Your task to perform on an android device: When is my next meeting? Image 0: 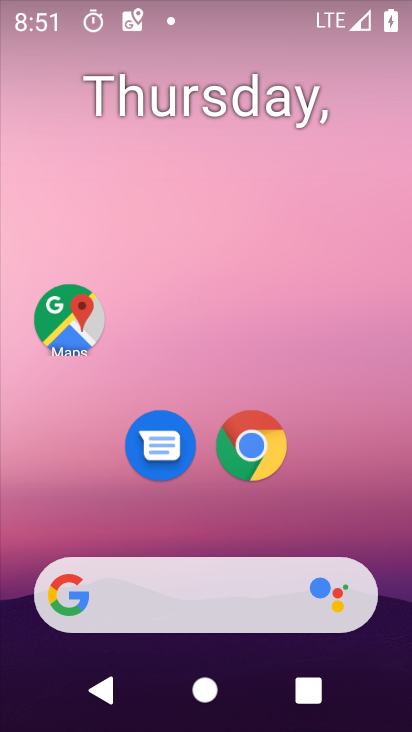
Step 0: drag from (190, 553) to (238, 169)
Your task to perform on an android device: When is my next meeting? Image 1: 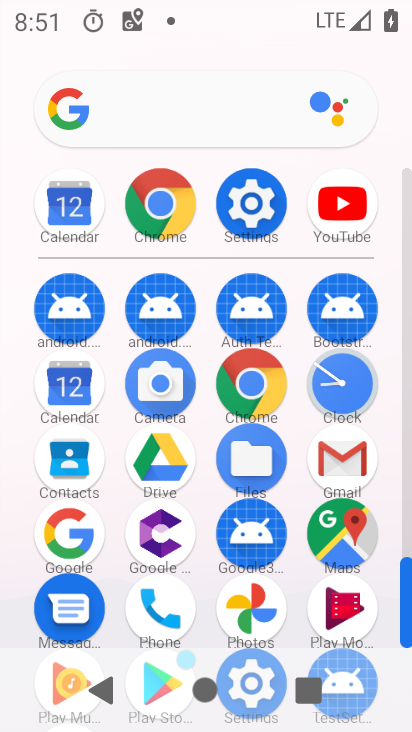
Step 1: drag from (201, 620) to (207, 249)
Your task to perform on an android device: When is my next meeting? Image 2: 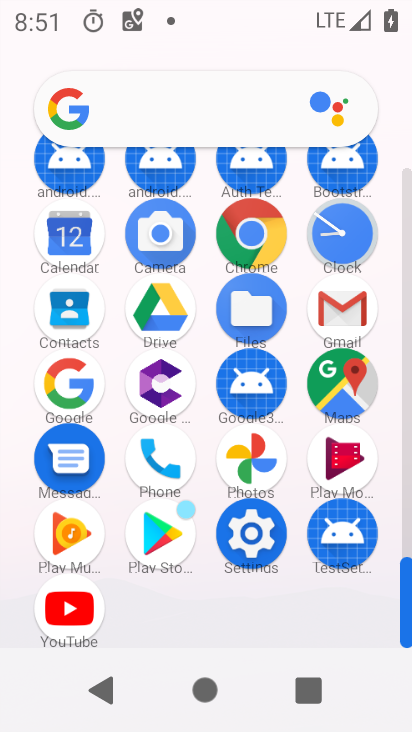
Step 2: click (75, 242)
Your task to perform on an android device: When is my next meeting? Image 3: 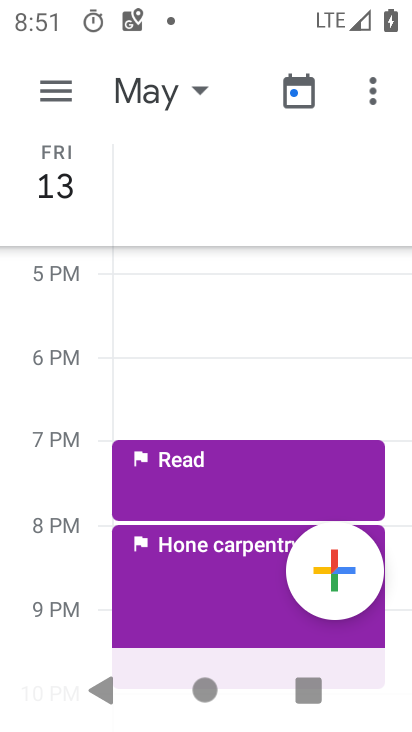
Step 3: click (158, 94)
Your task to perform on an android device: When is my next meeting? Image 4: 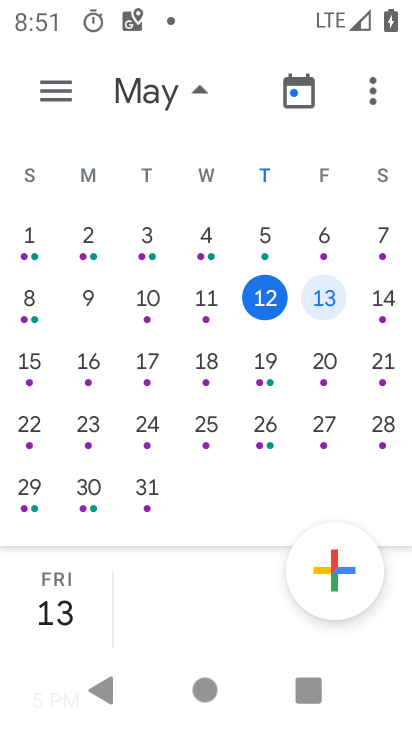
Step 4: click (329, 308)
Your task to perform on an android device: When is my next meeting? Image 5: 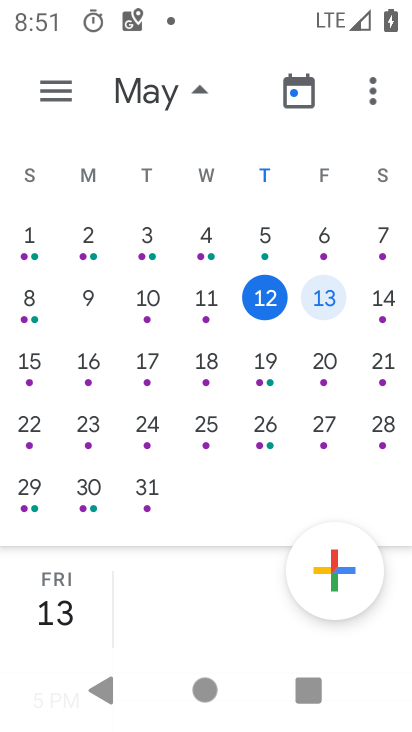
Step 5: task complete